Your task to perform on an android device: Open settings Image 0: 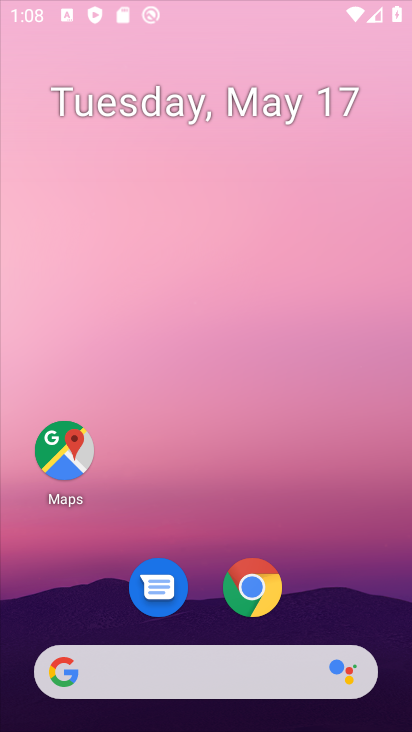
Step 0: click (117, 229)
Your task to perform on an android device: Open settings Image 1: 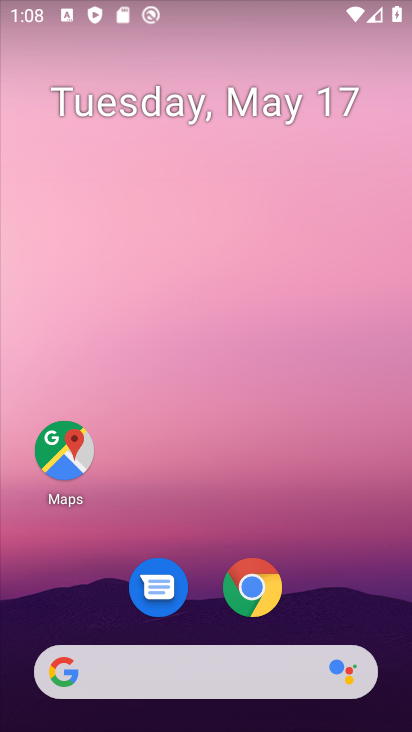
Step 1: drag from (189, 604) to (172, 223)
Your task to perform on an android device: Open settings Image 2: 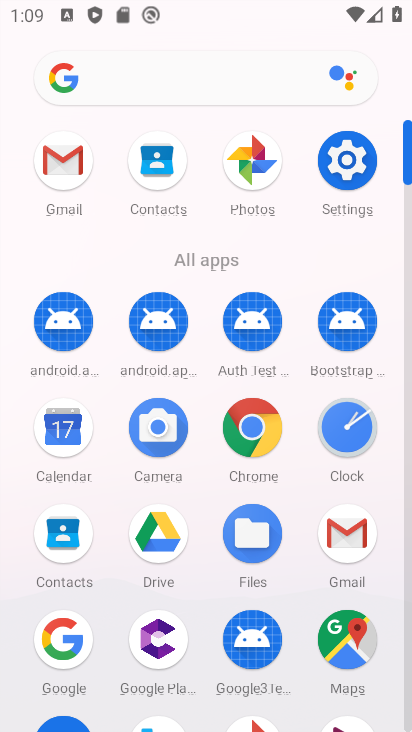
Step 2: click (354, 147)
Your task to perform on an android device: Open settings Image 3: 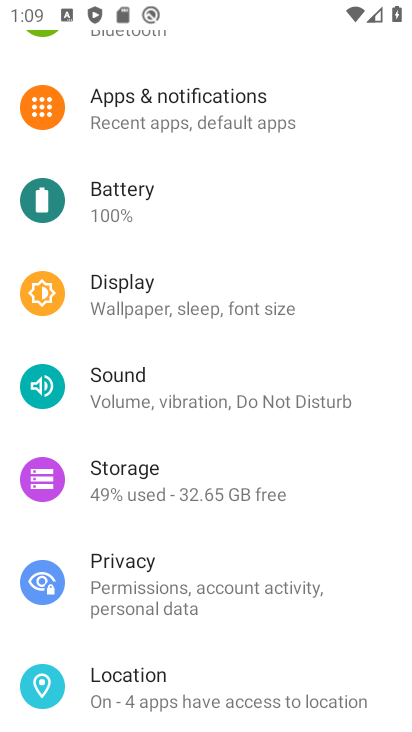
Step 3: task complete